Your task to perform on an android device: read, delete, or share a saved page in the chrome app Image 0: 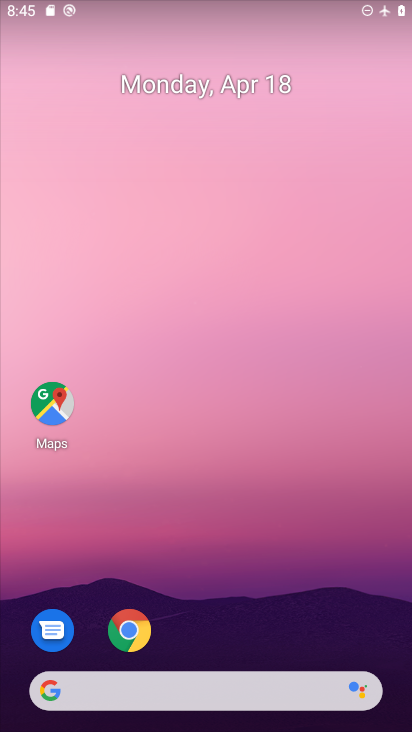
Step 0: click (133, 622)
Your task to perform on an android device: read, delete, or share a saved page in the chrome app Image 1: 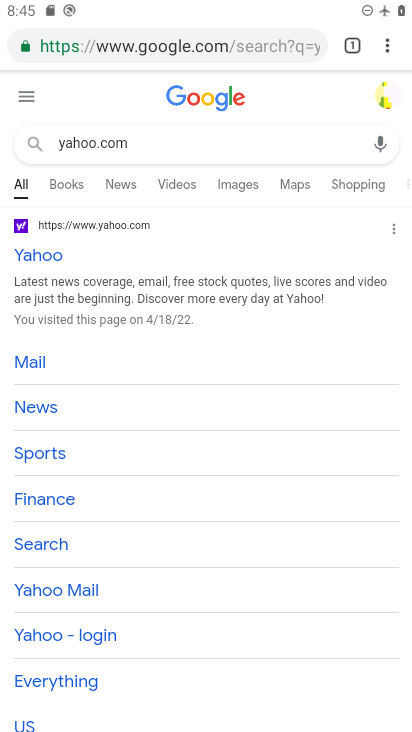
Step 1: click (396, 49)
Your task to perform on an android device: read, delete, or share a saved page in the chrome app Image 2: 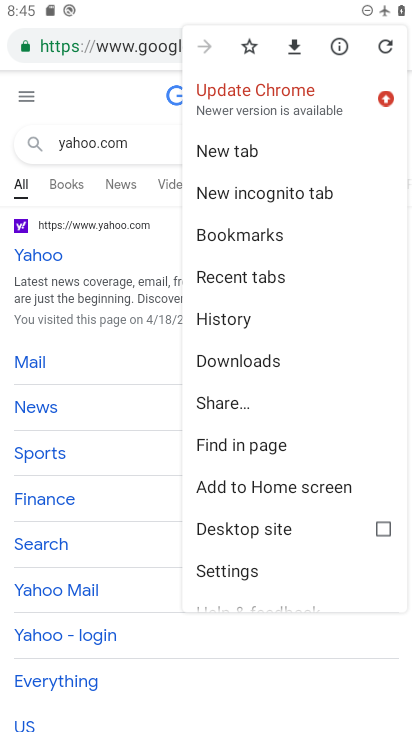
Step 2: click (240, 363)
Your task to perform on an android device: read, delete, or share a saved page in the chrome app Image 3: 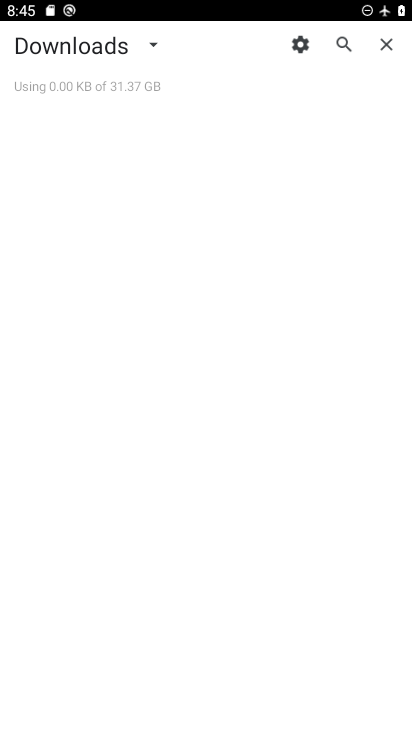
Step 3: task complete